Your task to perform on an android device: Where can I buy a nice beach tent? Image 0: 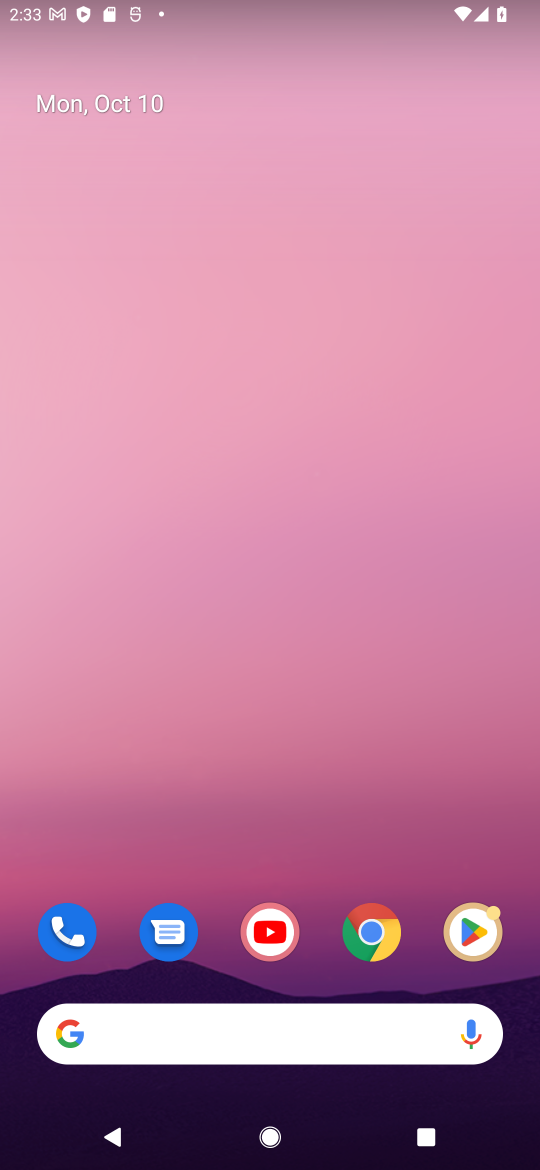
Step 0: click (273, 1030)
Your task to perform on an android device: Where can I buy a nice beach tent? Image 1: 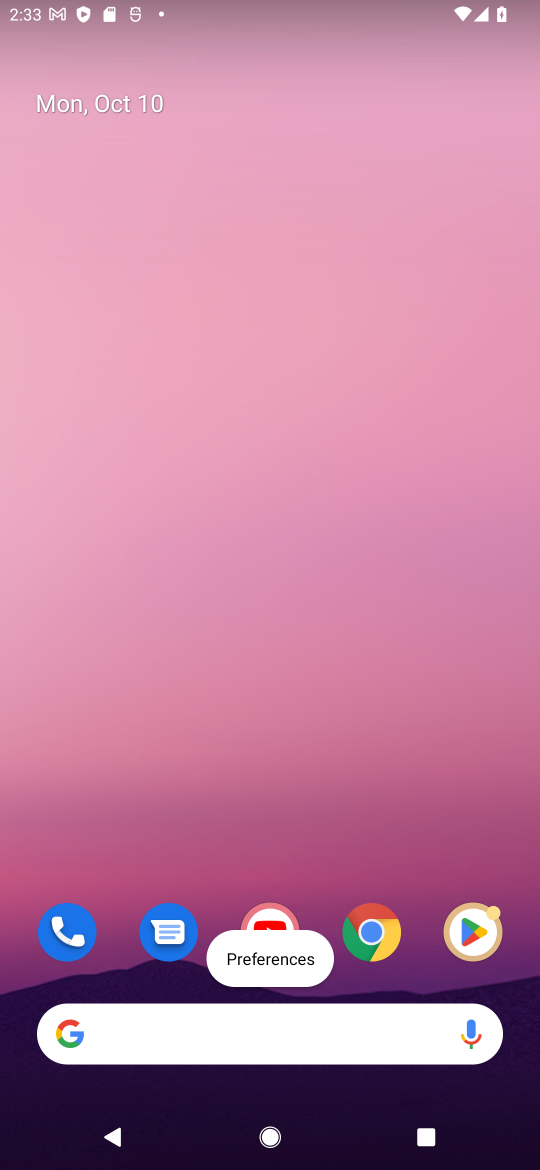
Step 1: click (87, 1039)
Your task to perform on an android device: Where can I buy a nice beach tent? Image 2: 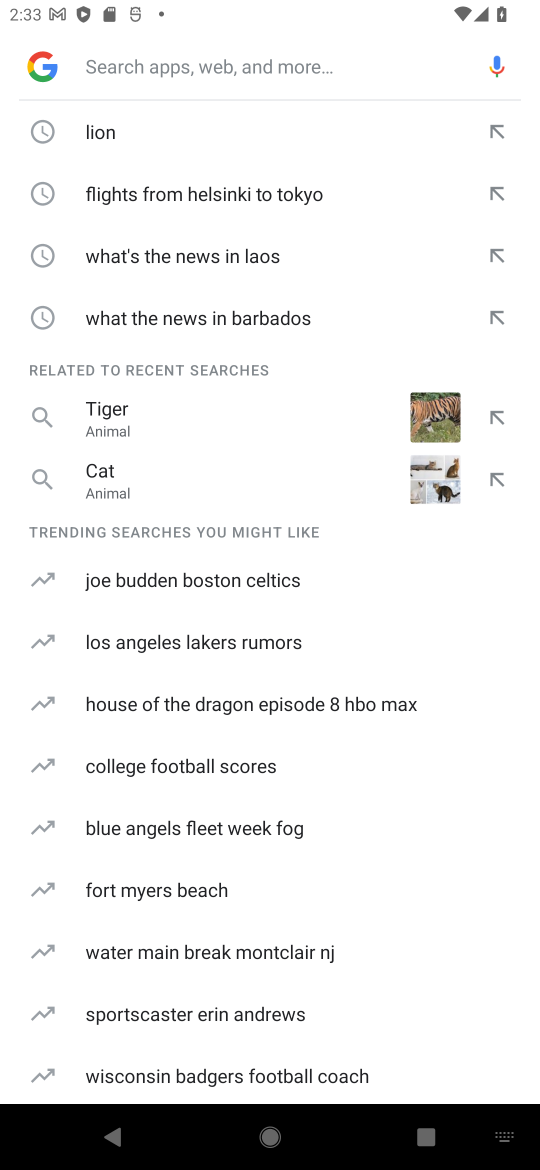
Step 2: type "Where can I buy a nice beach tent"
Your task to perform on an android device: Where can I buy a nice beach tent? Image 3: 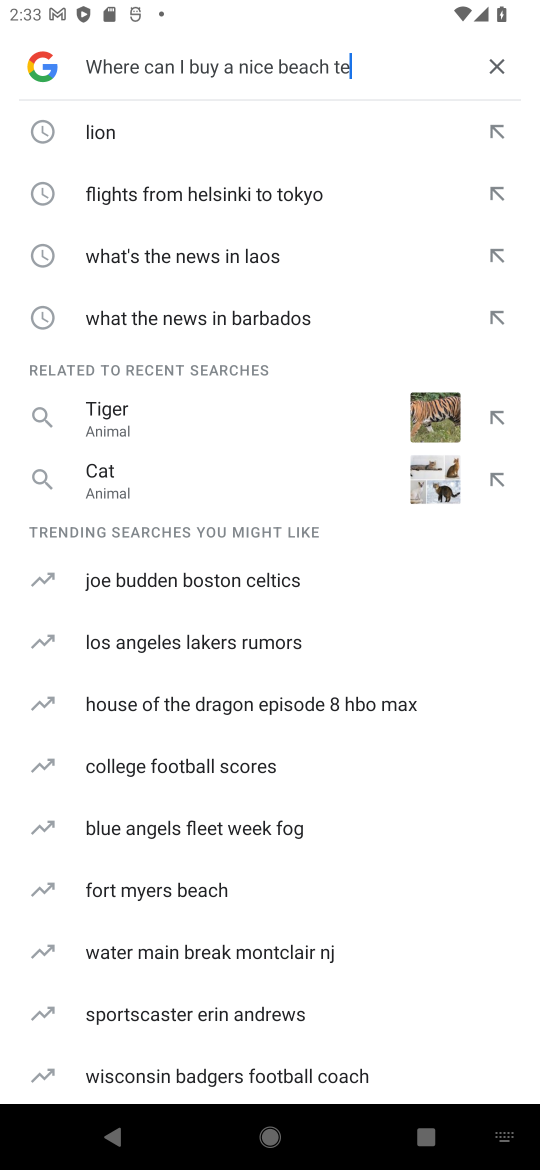
Step 3: press enter
Your task to perform on an android device: Where can I buy a nice beach tent? Image 4: 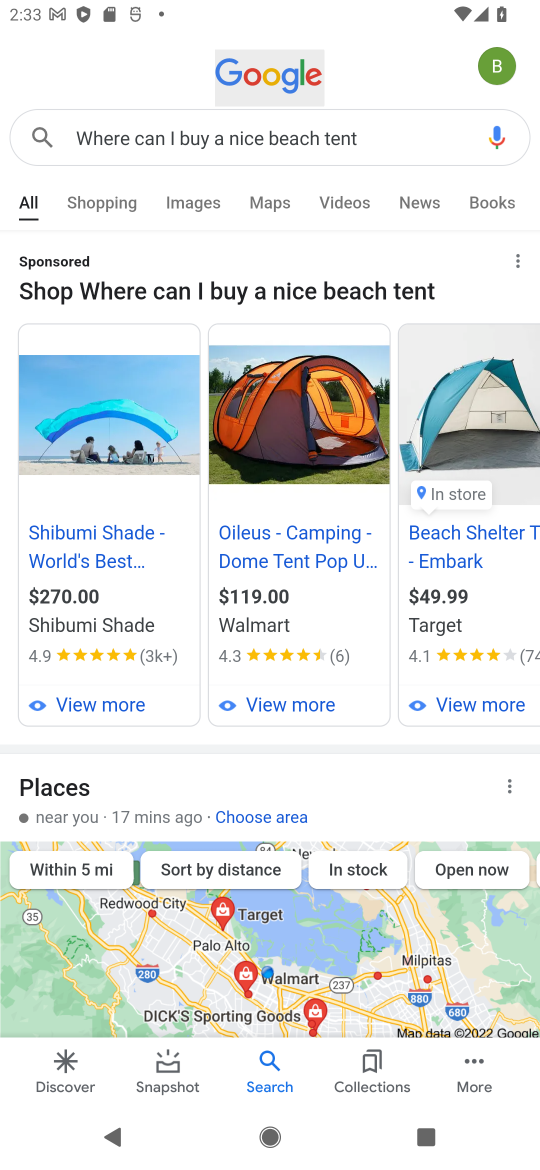
Step 4: task complete